Your task to perform on an android device: Is it going to rain today? Image 0: 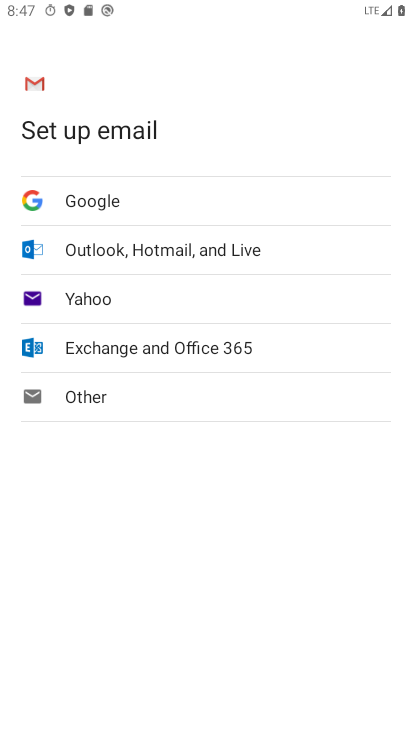
Step 0: press home button
Your task to perform on an android device: Is it going to rain today? Image 1: 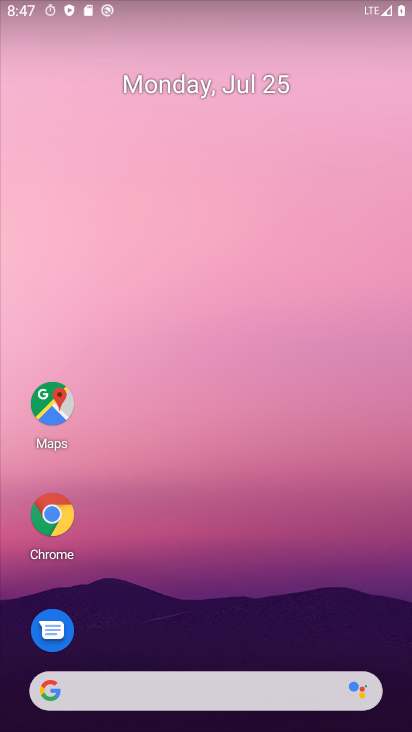
Step 1: click (121, 690)
Your task to perform on an android device: Is it going to rain today? Image 2: 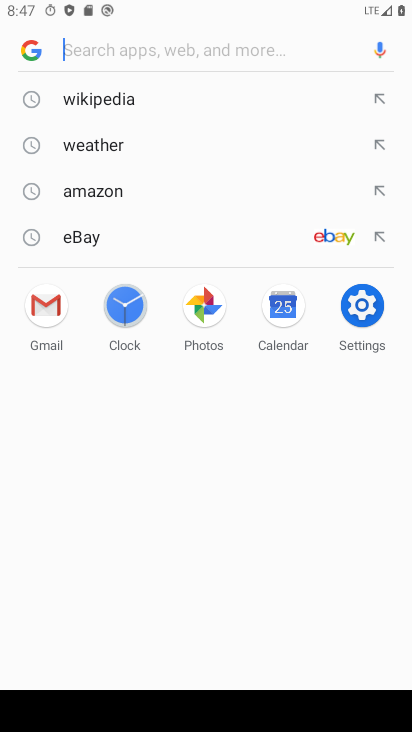
Step 2: type "Is it going to rain today?"
Your task to perform on an android device: Is it going to rain today? Image 3: 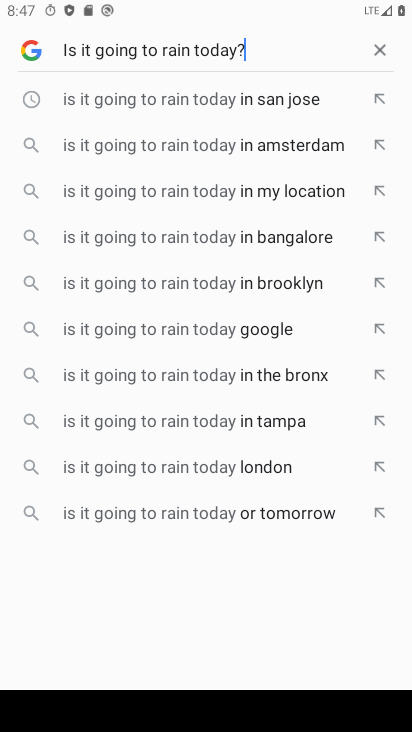
Step 3: type ""
Your task to perform on an android device: Is it going to rain today? Image 4: 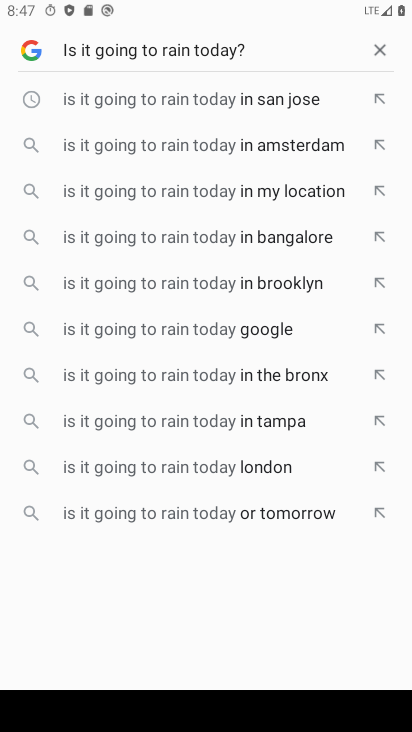
Step 4: type ""
Your task to perform on an android device: Is it going to rain today? Image 5: 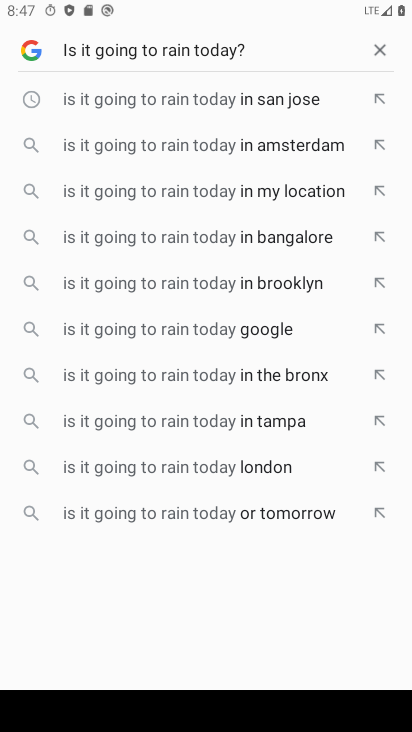
Step 5: task complete